Your task to perform on an android device: Search for dining room chairs on Crate & Barrel Image 0: 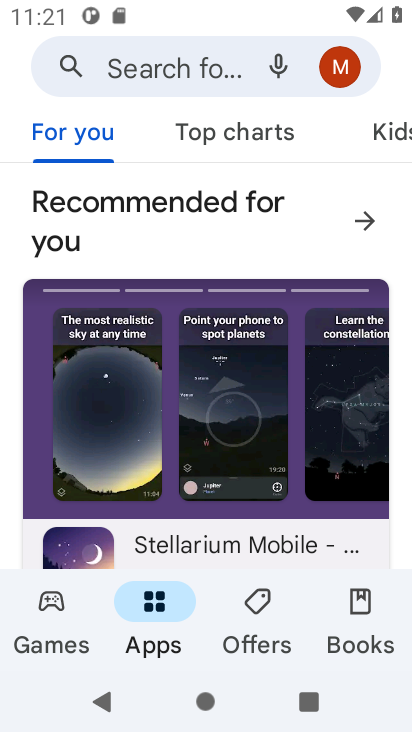
Step 0: press home button
Your task to perform on an android device: Search for dining room chairs on Crate & Barrel Image 1: 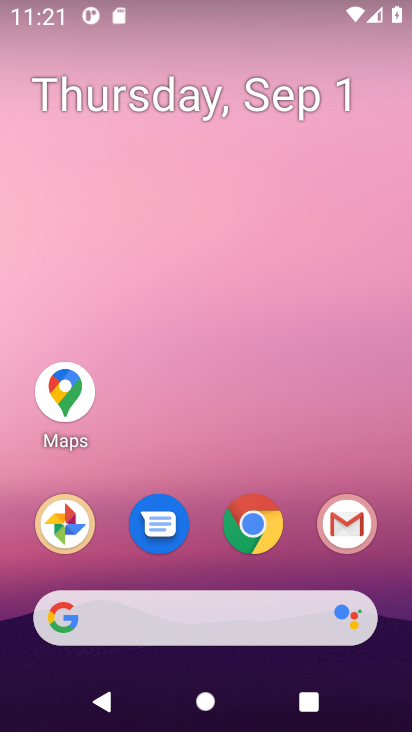
Step 1: drag from (401, 524) to (399, 136)
Your task to perform on an android device: Search for dining room chairs on Crate & Barrel Image 2: 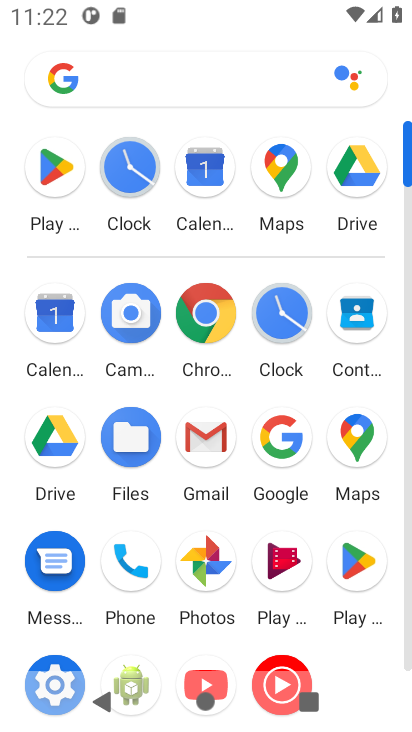
Step 2: click (276, 437)
Your task to perform on an android device: Search for dining room chairs on Crate & Barrel Image 3: 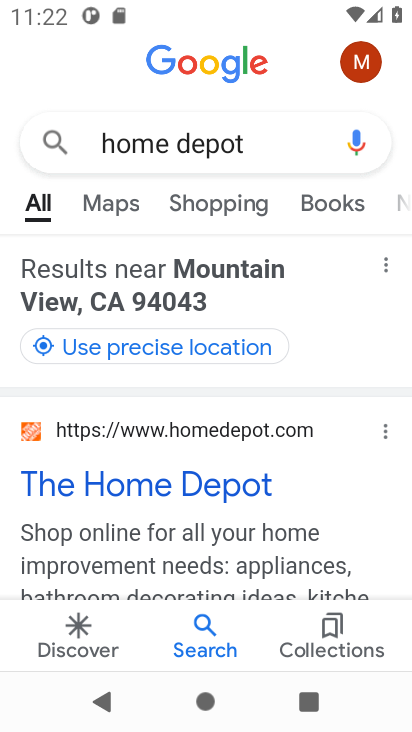
Step 3: click (266, 140)
Your task to perform on an android device: Search for dining room chairs on Crate & Barrel Image 4: 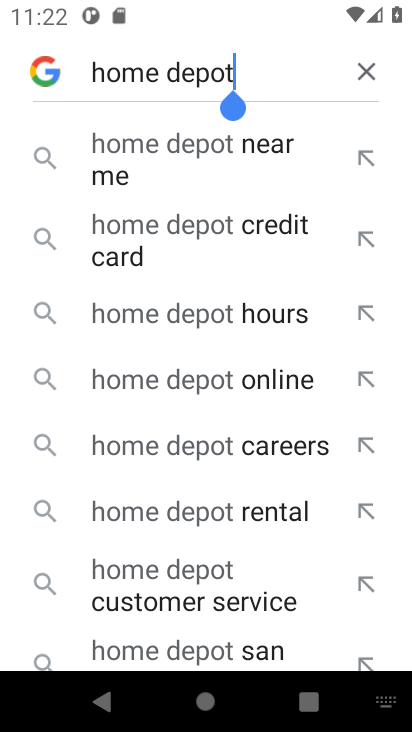
Step 4: click (369, 69)
Your task to perform on an android device: Search for dining room chairs on Crate & Barrel Image 5: 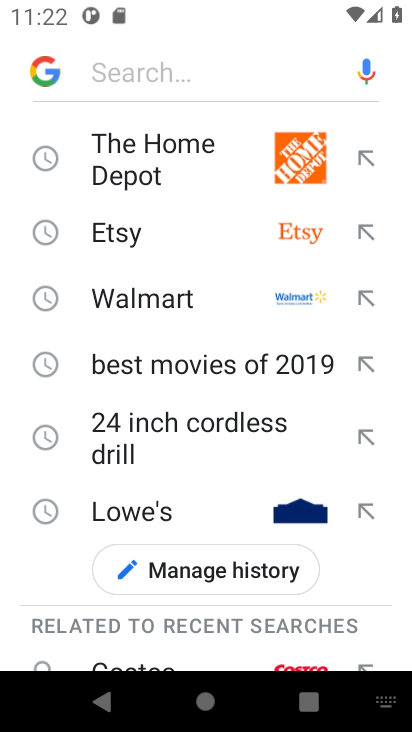
Step 5: press enter
Your task to perform on an android device: Search for dining room chairs on Crate & Barrel Image 6: 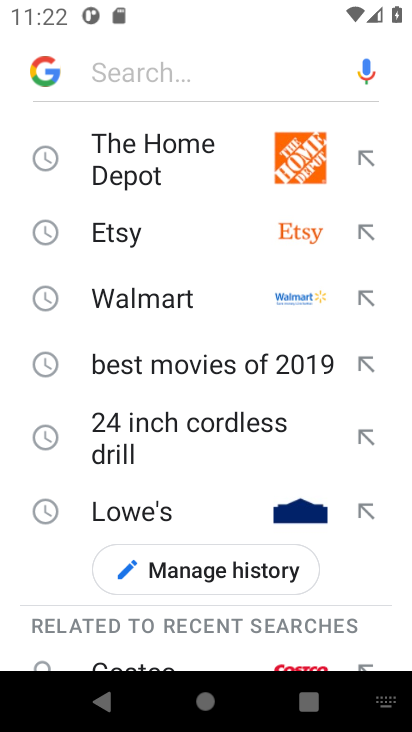
Step 6: type "crate barrel"
Your task to perform on an android device: Search for dining room chairs on Crate & Barrel Image 7: 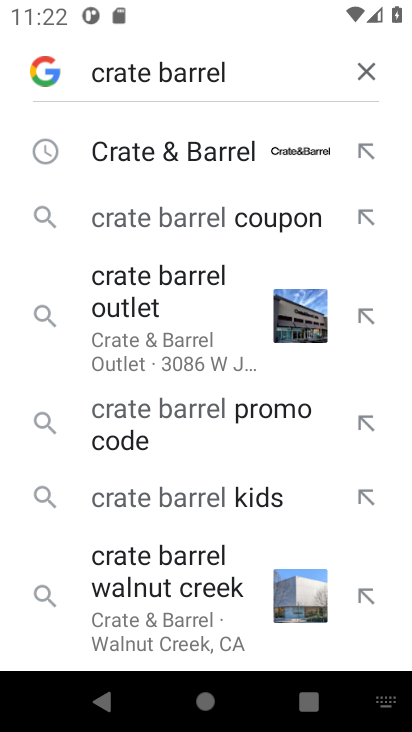
Step 7: click (168, 156)
Your task to perform on an android device: Search for dining room chairs on Crate & Barrel Image 8: 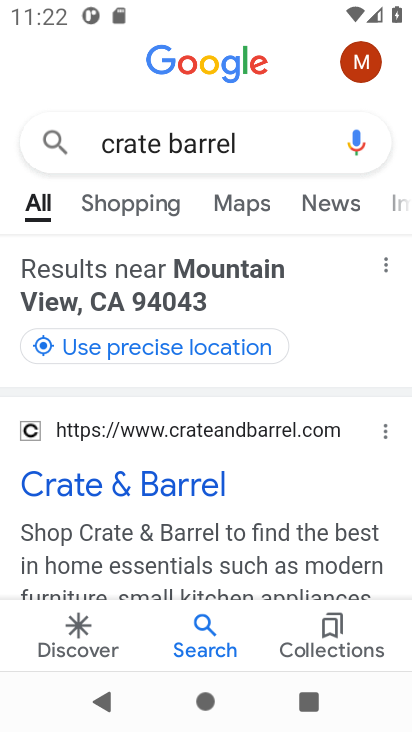
Step 8: click (171, 482)
Your task to perform on an android device: Search for dining room chairs on Crate & Barrel Image 9: 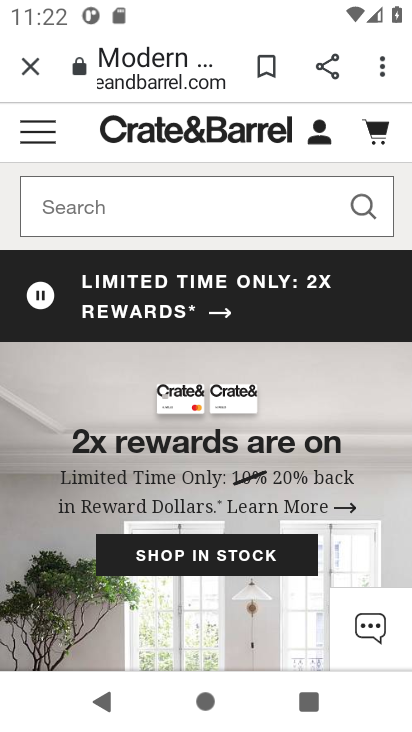
Step 9: click (177, 211)
Your task to perform on an android device: Search for dining room chairs on Crate & Barrel Image 10: 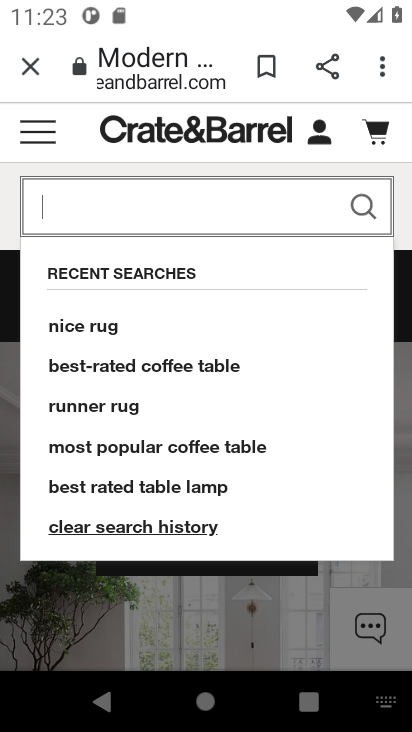
Step 10: press enter
Your task to perform on an android device: Search for dining room chairs on Crate & Barrel Image 11: 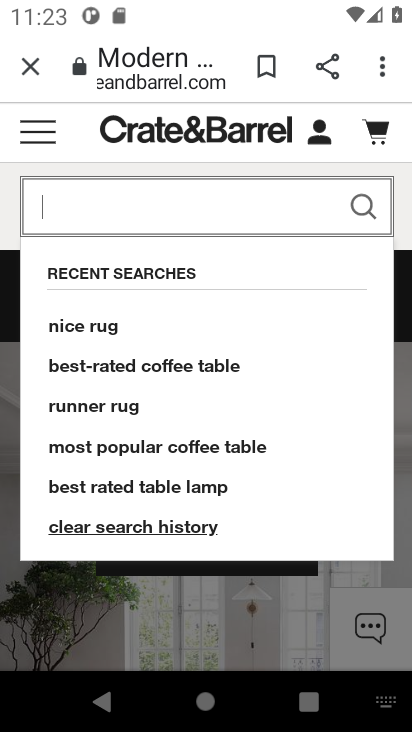
Step 11: type "dining room chairs"
Your task to perform on an android device: Search for dining room chairs on Crate & Barrel Image 12: 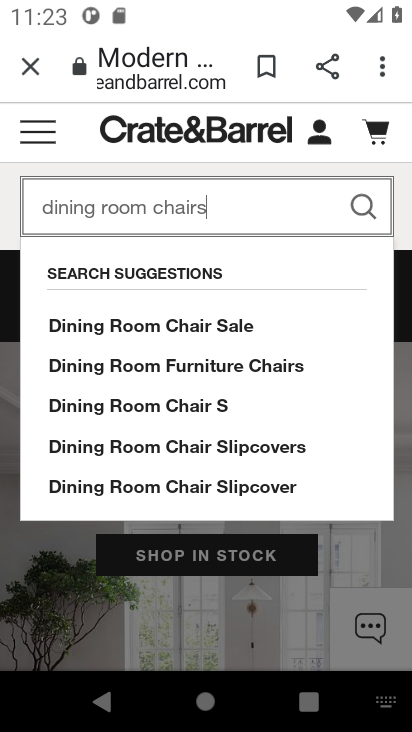
Step 12: click (220, 322)
Your task to perform on an android device: Search for dining room chairs on Crate & Barrel Image 13: 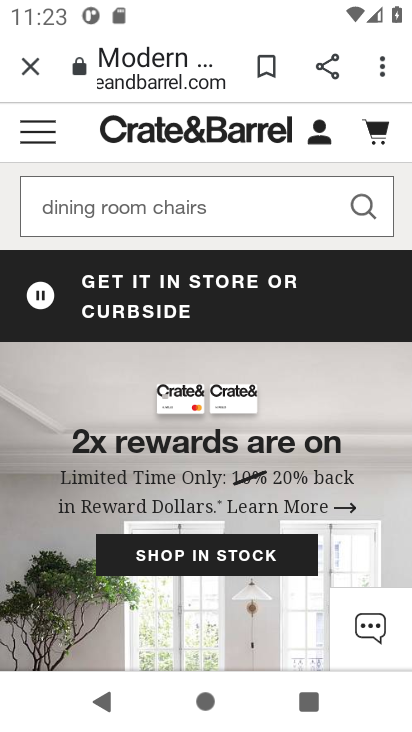
Step 13: click (367, 209)
Your task to perform on an android device: Search for dining room chairs on Crate & Barrel Image 14: 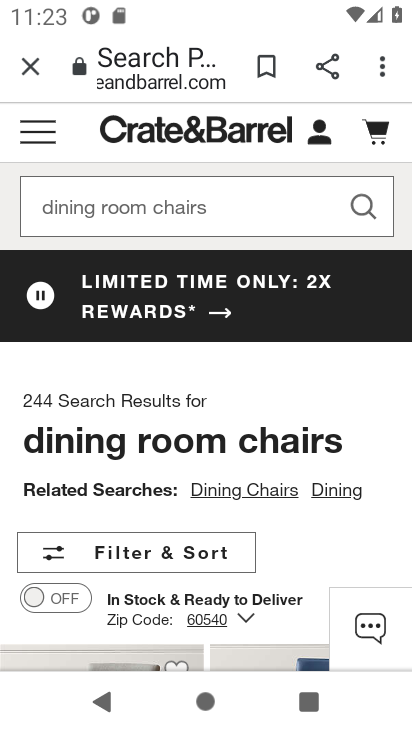
Step 14: task complete